Your task to perform on an android device: change alarm snooze length Image 0: 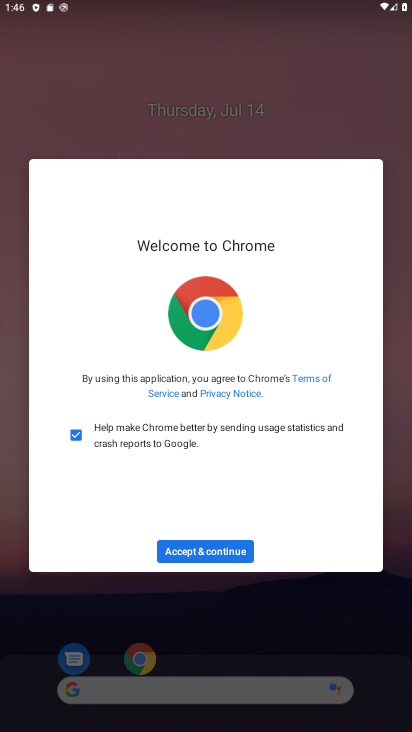
Step 0: press home button
Your task to perform on an android device: change alarm snooze length Image 1: 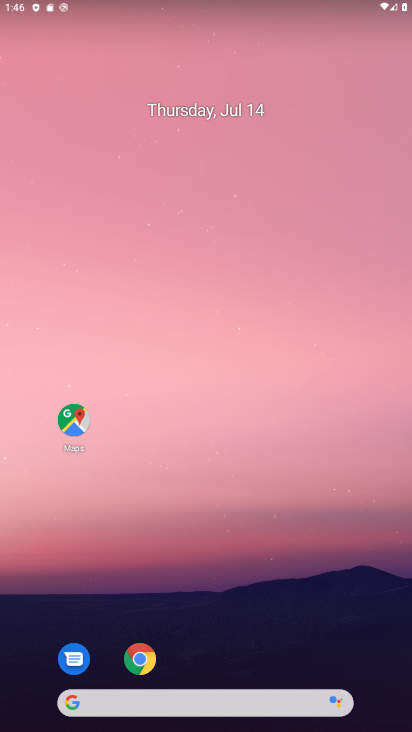
Step 1: drag from (282, 717) to (317, 256)
Your task to perform on an android device: change alarm snooze length Image 2: 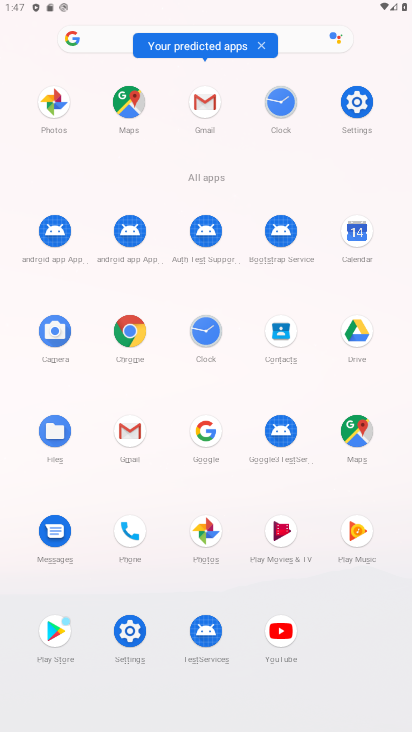
Step 2: click (277, 114)
Your task to perform on an android device: change alarm snooze length Image 3: 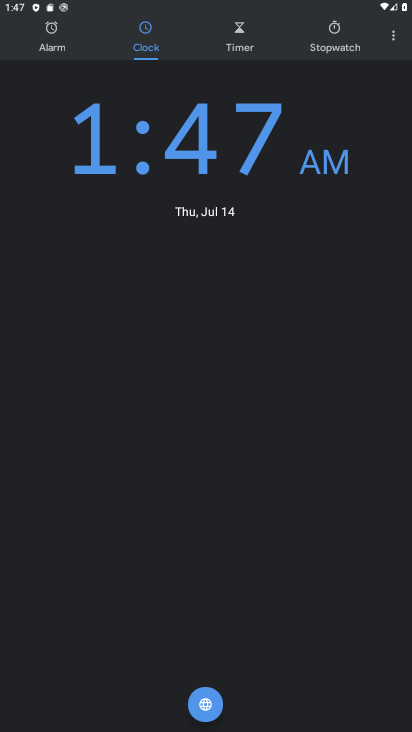
Step 3: click (384, 46)
Your task to perform on an android device: change alarm snooze length Image 4: 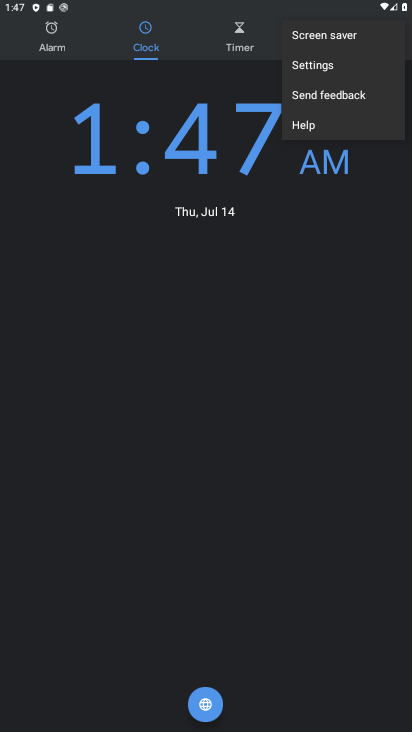
Step 4: click (331, 66)
Your task to perform on an android device: change alarm snooze length Image 5: 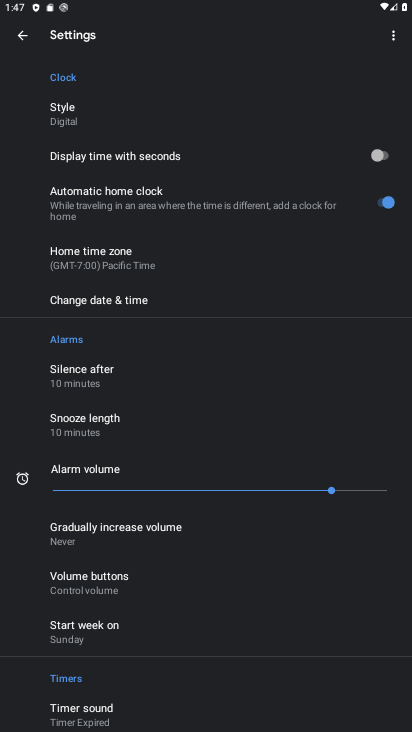
Step 5: click (112, 432)
Your task to perform on an android device: change alarm snooze length Image 6: 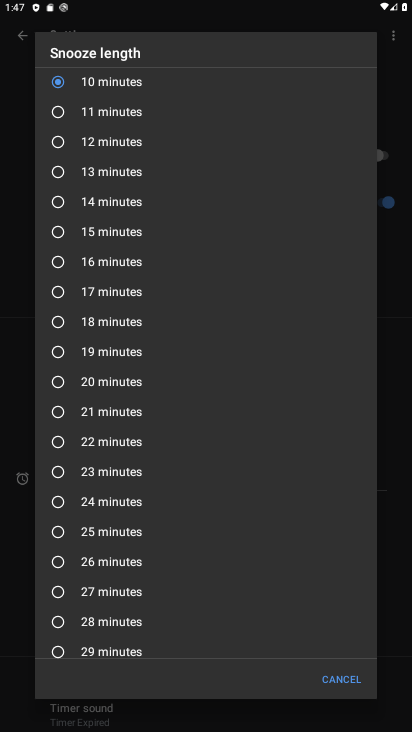
Step 6: click (112, 388)
Your task to perform on an android device: change alarm snooze length Image 7: 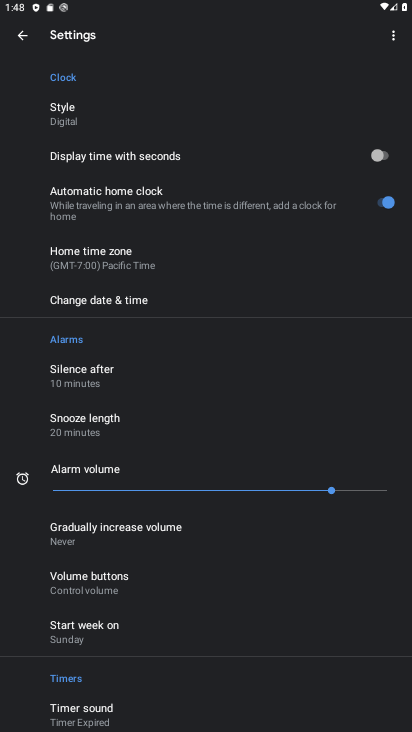
Step 7: task complete